Your task to perform on an android device: Go to Google maps Image 0: 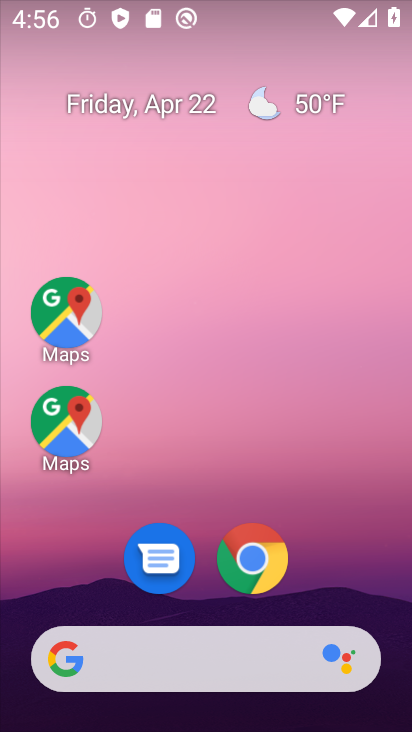
Step 0: drag from (309, 568) to (254, 73)
Your task to perform on an android device: Go to Google maps Image 1: 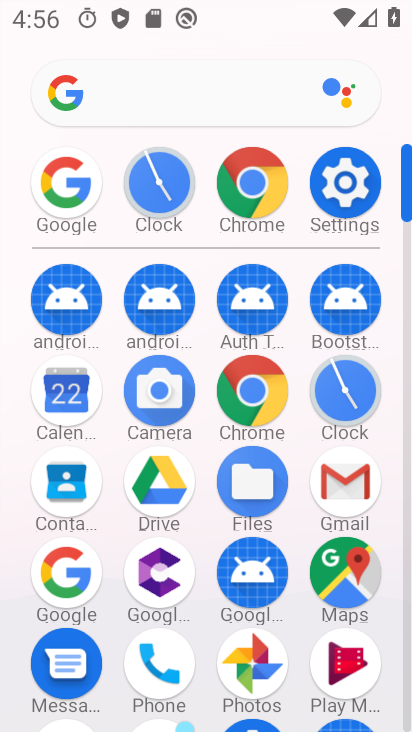
Step 1: click (69, 201)
Your task to perform on an android device: Go to Google maps Image 2: 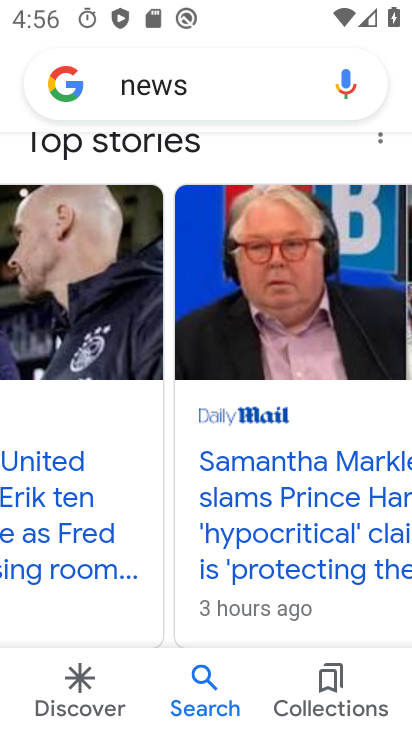
Step 2: press home button
Your task to perform on an android device: Go to Google maps Image 3: 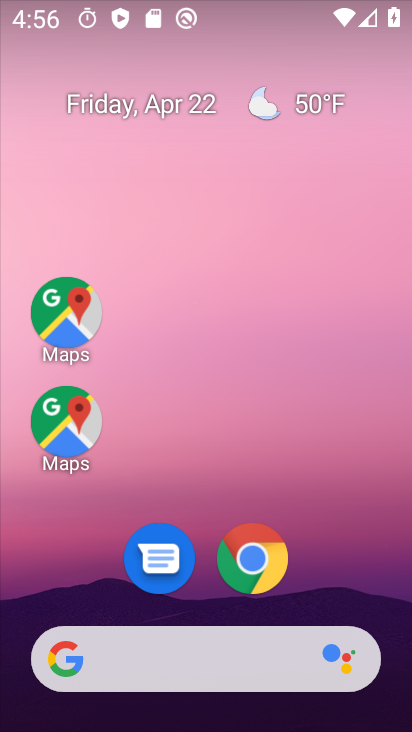
Step 3: drag from (307, 597) to (313, 53)
Your task to perform on an android device: Go to Google maps Image 4: 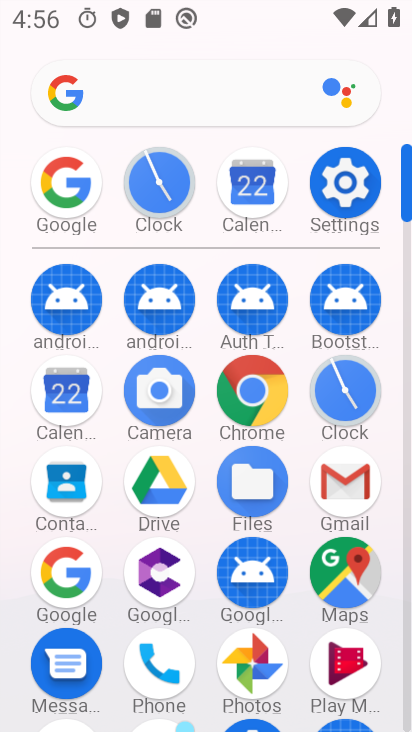
Step 4: click (340, 594)
Your task to perform on an android device: Go to Google maps Image 5: 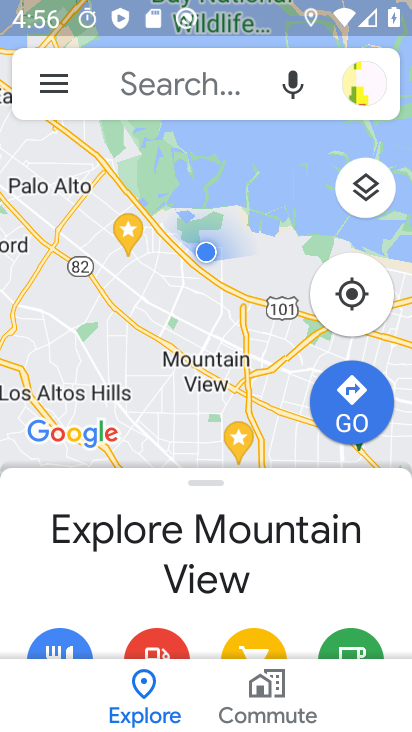
Step 5: task complete